Your task to perform on an android device: set the stopwatch Image 0: 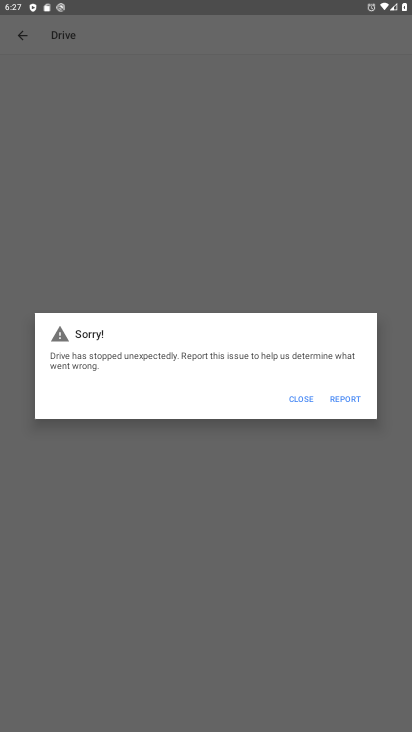
Step 0: press home button
Your task to perform on an android device: set the stopwatch Image 1: 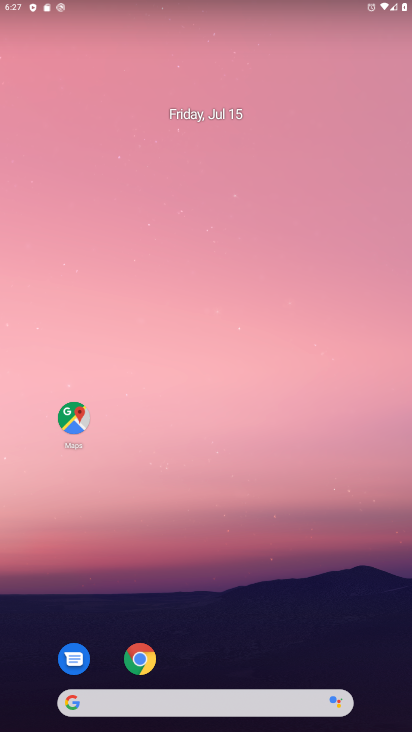
Step 1: drag from (302, 649) to (246, 91)
Your task to perform on an android device: set the stopwatch Image 2: 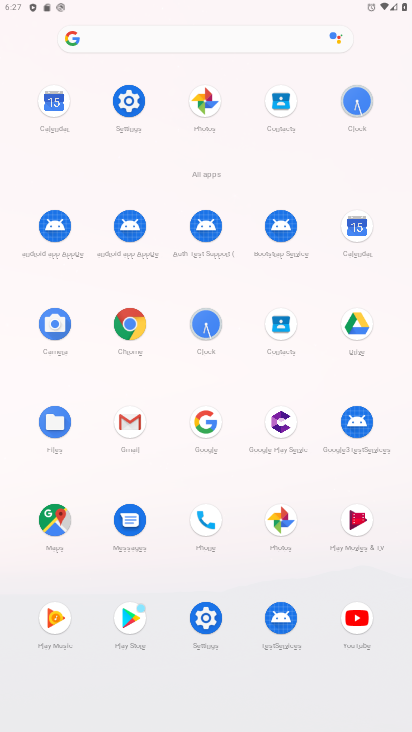
Step 2: click (204, 328)
Your task to perform on an android device: set the stopwatch Image 3: 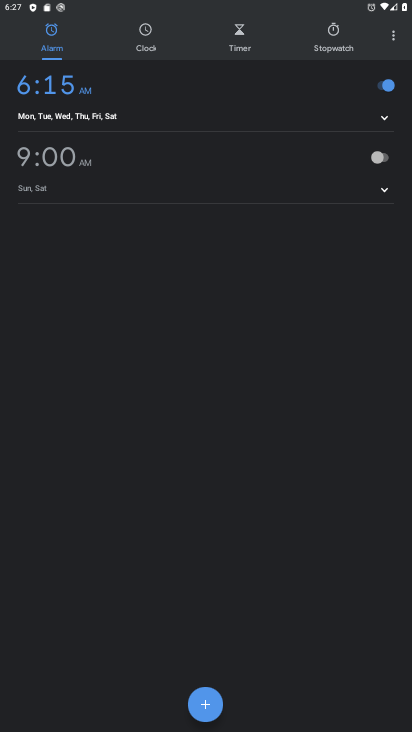
Step 3: click (328, 37)
Your task to perform on an android device: set the stopwatch Image 4: 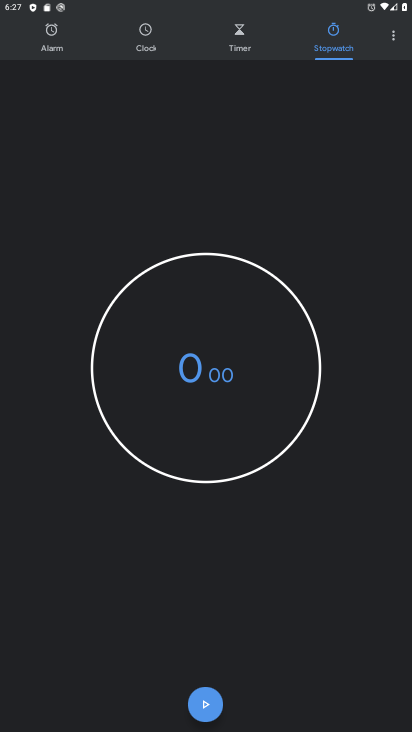
Step 4: task complete